Your task to perform on an android device: turn on sleep mode Image 0: 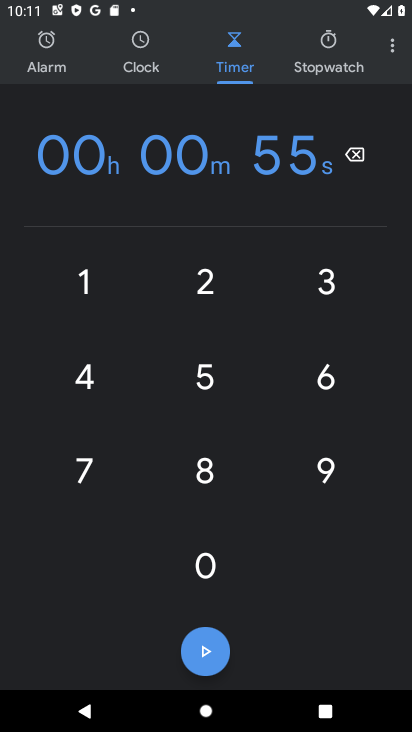
Step 0: press home button
Your task to perform on an android device: turn on sleep mode Image 1: 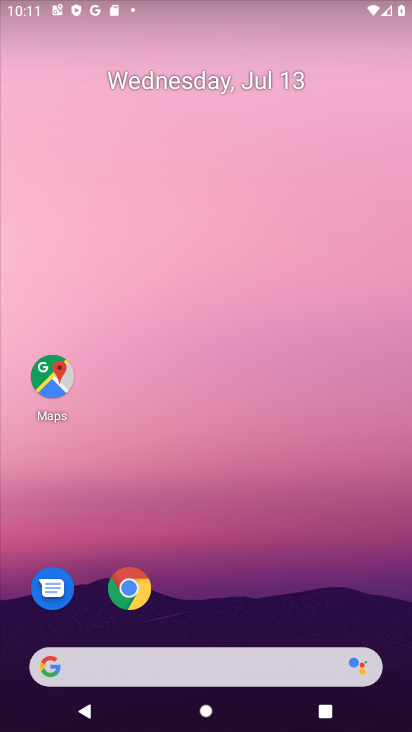
Step 1: drag from (195, 529) to (223, 94)
Your task to perform on an android device: turn on sleep mode Image 2: 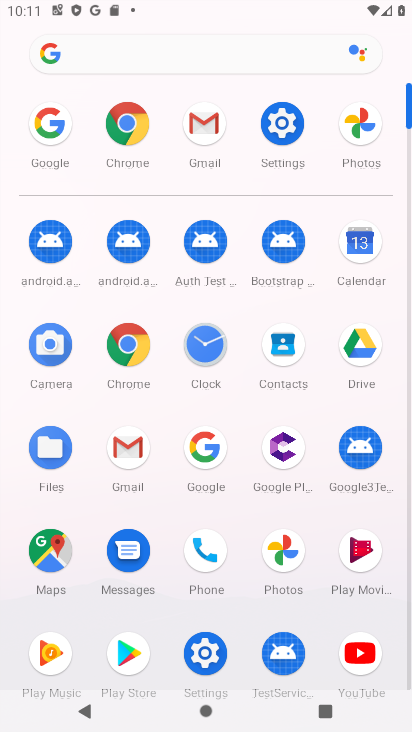
Step 2: click (288, 122)
Your task to perform on an android device: turn on sleep mode Image 3: 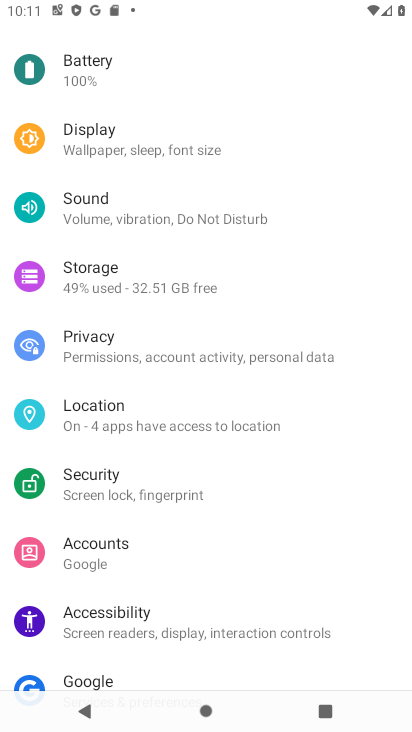
Step 3: click (121, 145)
Your task to perform on an android device: turn on sleep mode Image 4: 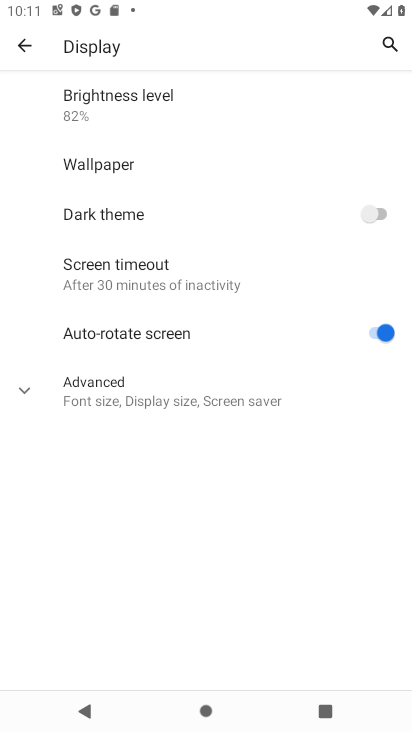
Step 4: click (132, 275)
Your task to perform on an android device: turn on sleep mode Image 5: 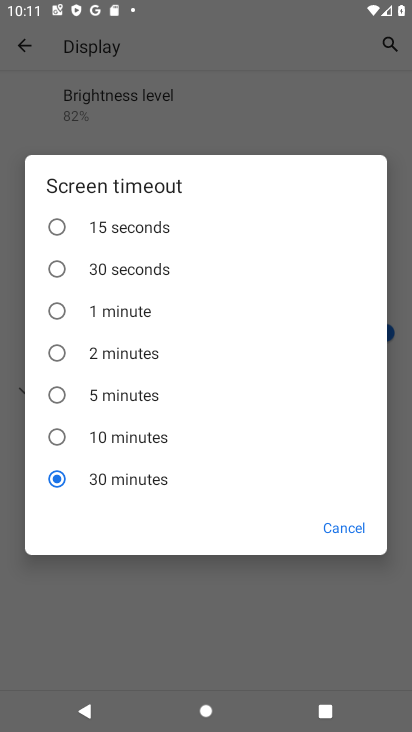
Step 5: task complete